Your task to perform on an android device: turn on notifications settings in the gmail app Image 0: 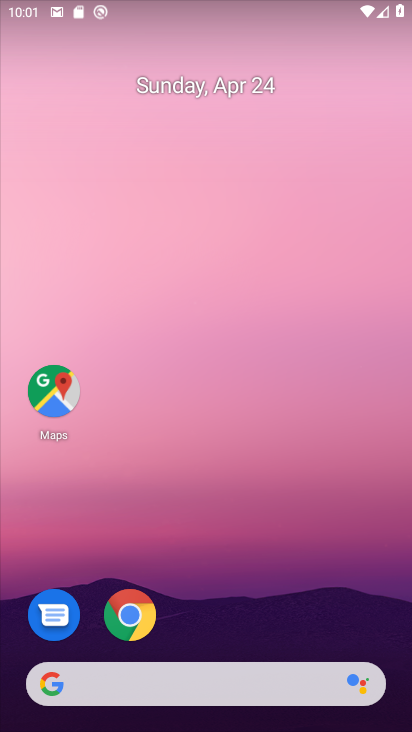
Step 0: drag from (199, 546) to (198, 115)
Your task to perform on an android device: turn on notifications settings in the gmail app Image 1: 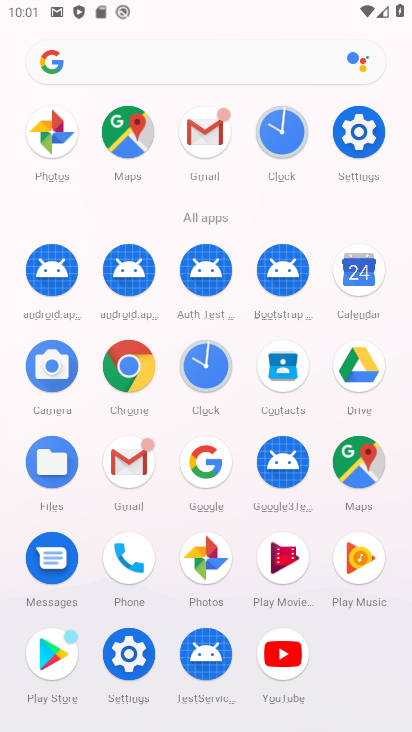
Step 1: click (131, 451)
Your task to perform on an android device: turn on notifications settings in the gmail app Image 2: 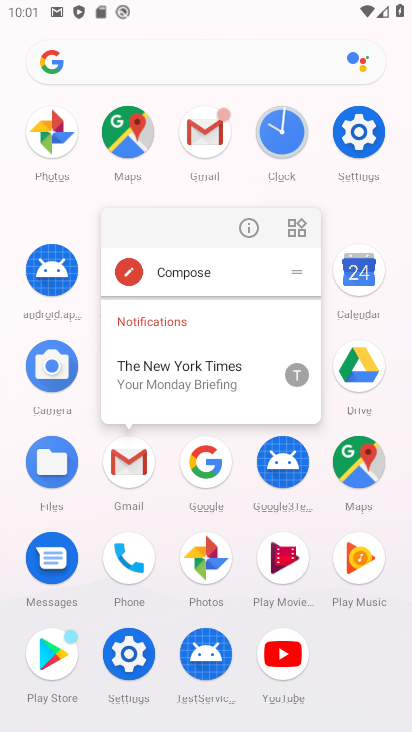
Step 2: click (126, 455)
Your task to perform on an android device: turn on notifications settings in the gmail app Image 3: 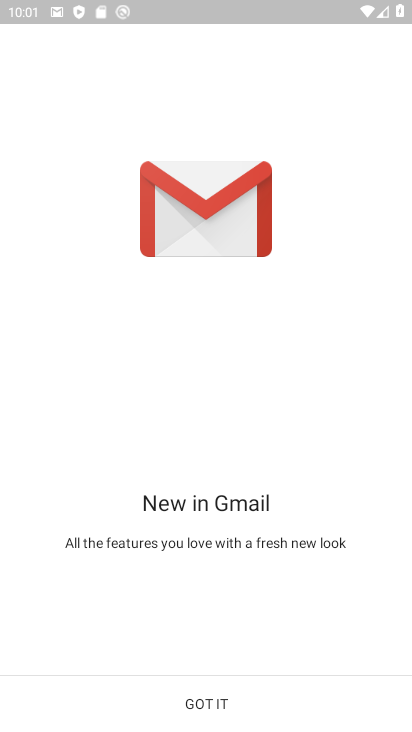
Step 3: click (205, 706)
Your task to perform on an android device: turn on notifications settings in the gmail app Image 4: 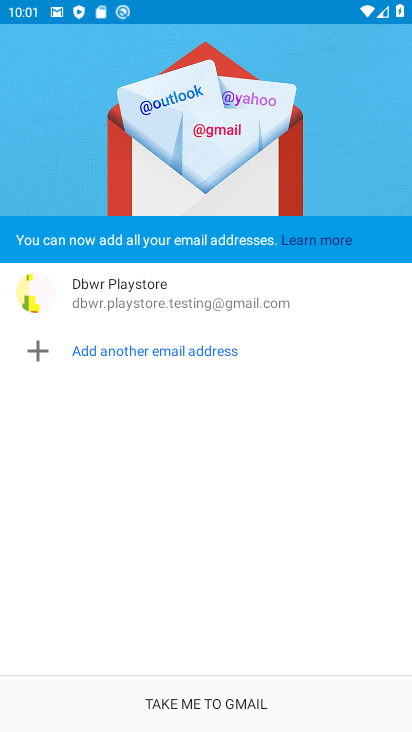
Step 4: click (202, 710)
Your task to perform on an android device: turn on notifications settings in the gmail app Image 5: 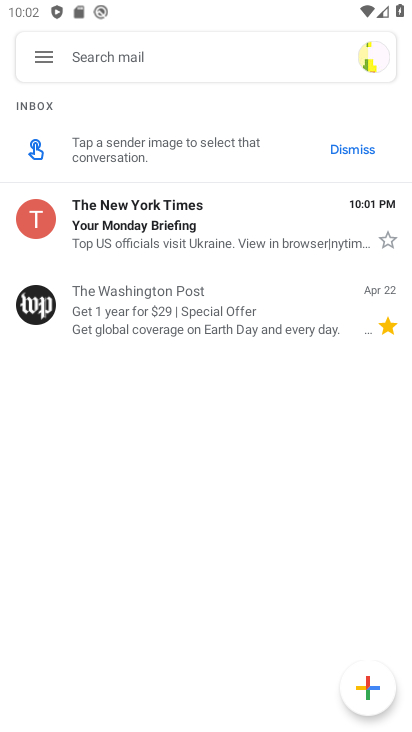
Step 5: click (40, 56)
Your task to perform on an android device: turn on notifications settings in the gmail app Image 6: 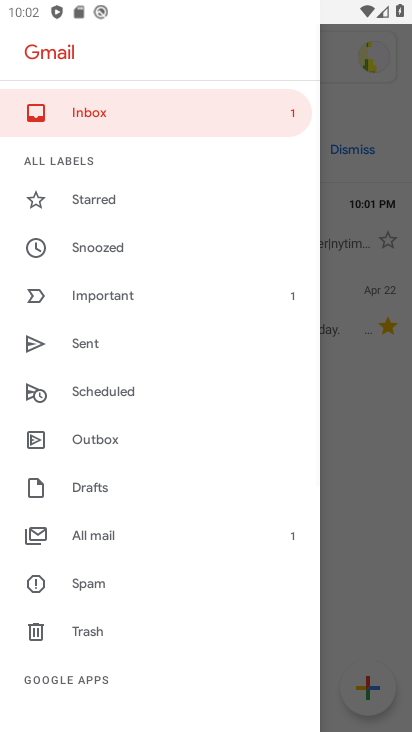
Step 6: drag from (140, 658) to (161, 137)
Your task to perform on an android device: turn on notifications settings in the gmail app Image 7: 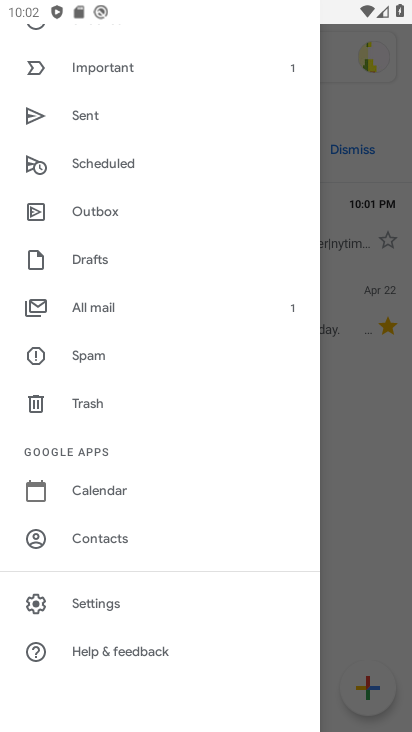
Step 7: click (123, 599)
Your task to perform on an android device: turn on notifications settings in the gmail app Image 8: 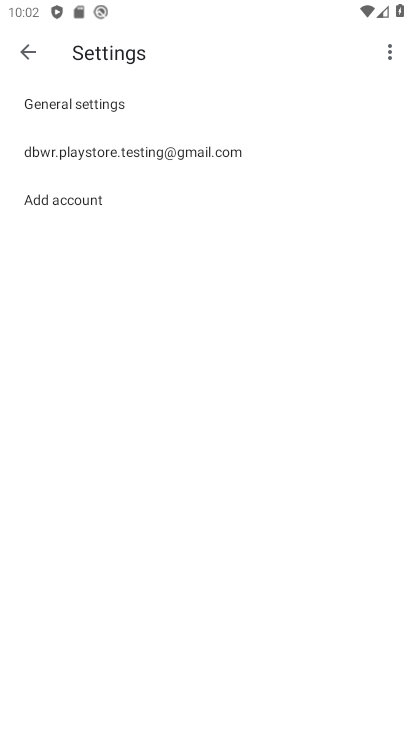
Step 8: click (127, 98)
Your task to perform on an android device: turn on notifications settings in the gmail app Image 9: 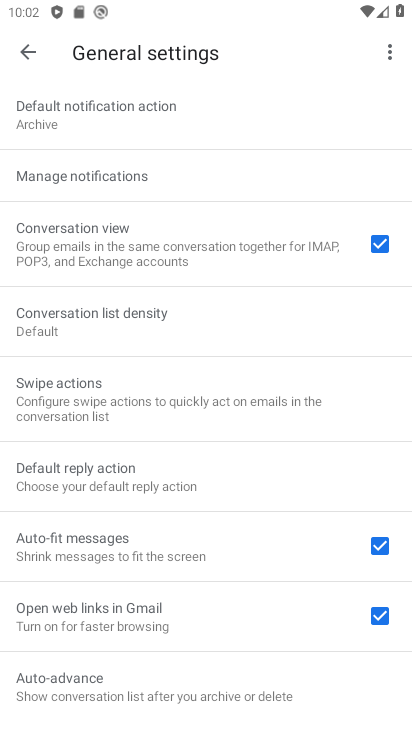
Step 9: click (167, 168)
Your task to perform on an android device: turn on notifications settings in the gmail app Image 10: 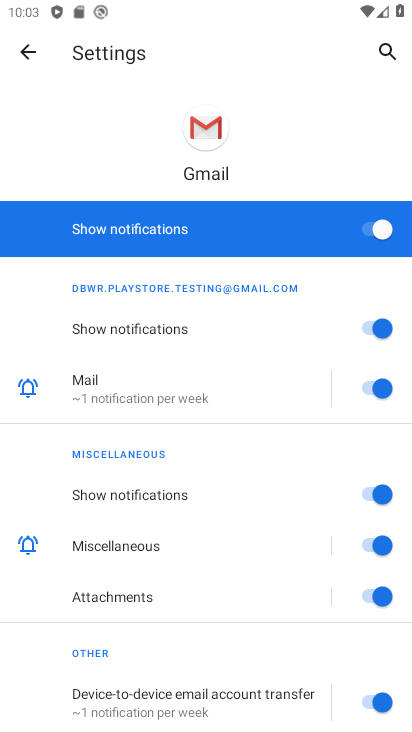
Step 10: task complete